Your task to perform on an android device: delete the emails in spam in the gmail app Image 0: 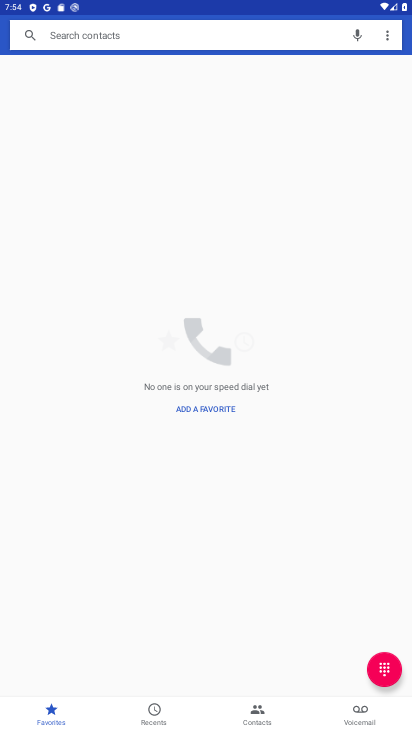
Step 0: press home button
Your task to perform on an android device: delete the emails in spam in the gmail app Image 1: 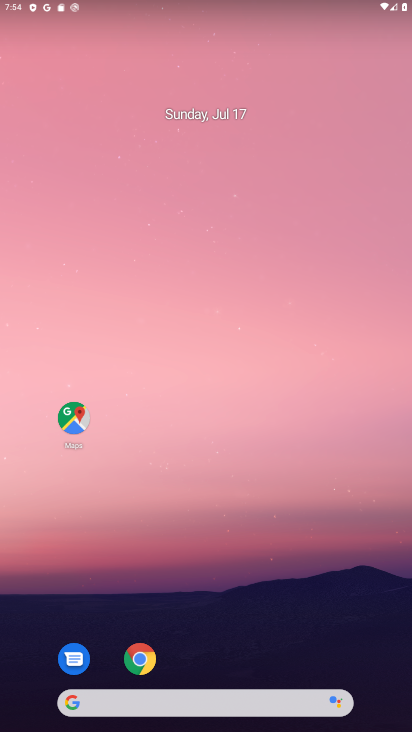
Step 1: drag from (216, 552) to (328, 194)
Your task to perform on an android device: delete the emails in spam in the gmail app Image 2: 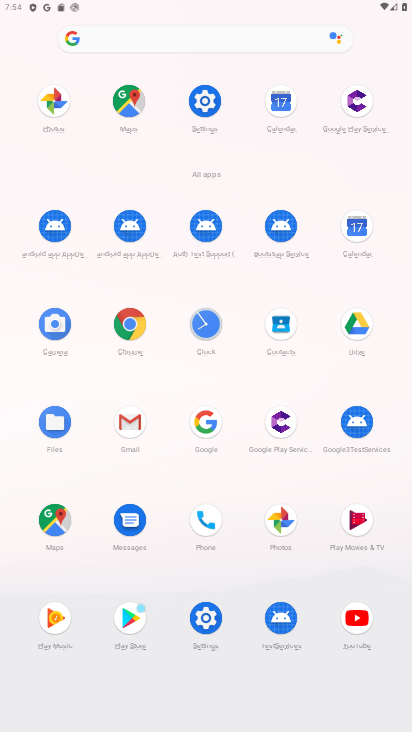
Step 2: click (131, 423)
Your task to perform on an android device: delete the emails in spam in the gmail app Image 3: 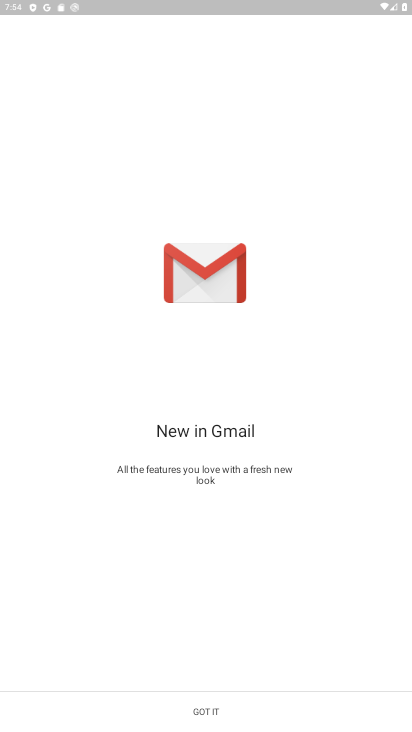
Step 3: click (206, 701)
Your task to perform on an android device: delete the emails in spam in the gmail app Image 4: 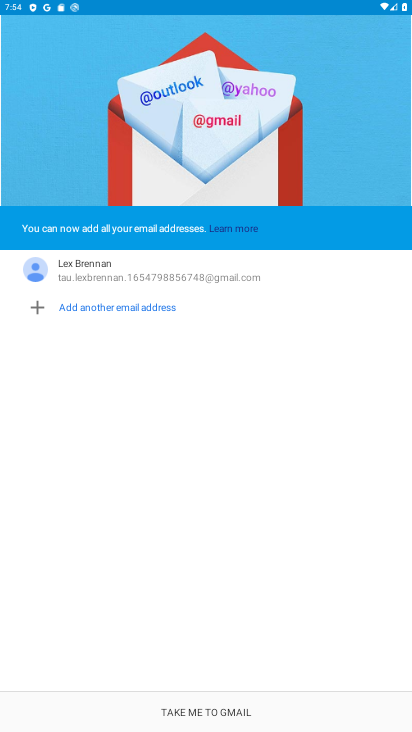
Step 4: click (135, 270)
Your task to perform on an android device: delete the emails in spam in the gmail app Image 5: 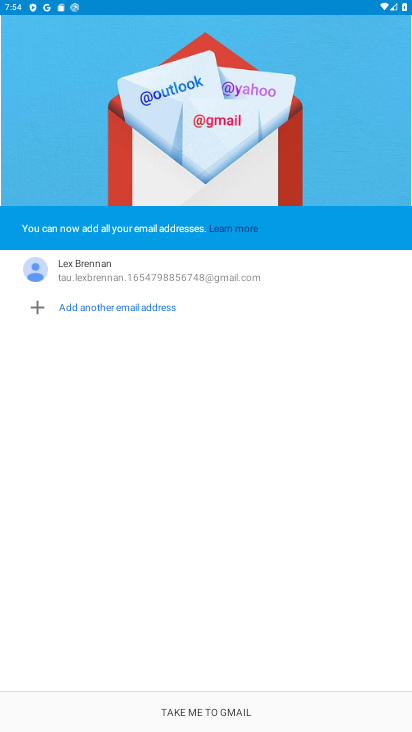
Step 5: click (130, 270)
Your task to perform on an android device: delete the emails in spam in the gmail app Image 6: 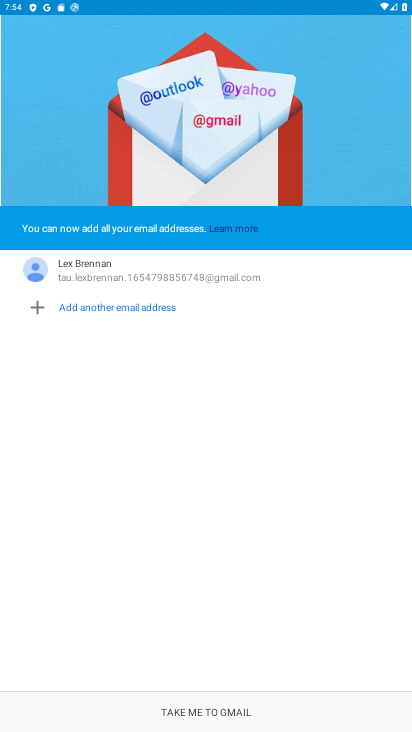
Step 6: click (202, 711)
Your task to perform on an android device: delete the emails in spam in the gmail app Image 7: 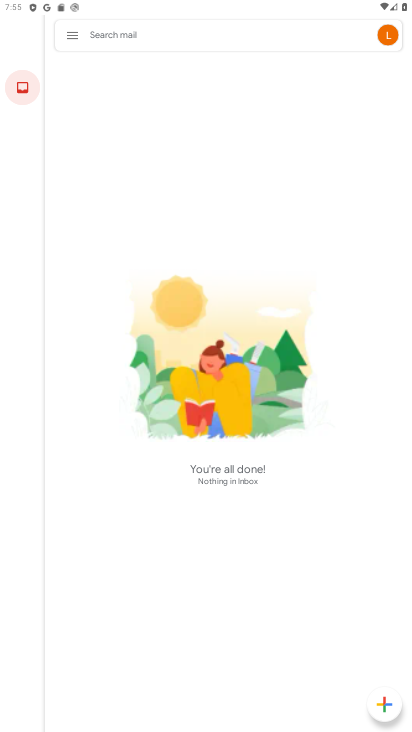
Step 7: click (77, 34)
Your task to perform on an android device: delete the emails in spam in the gmail app Image 8: 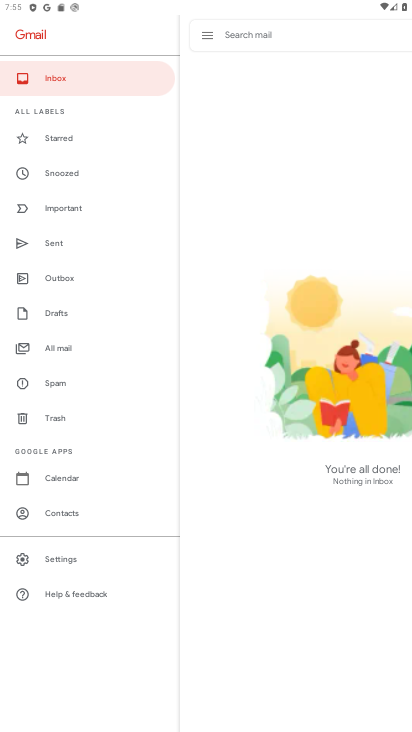
Step 8: click (73, 378)
Your task to perform on an android device: delete the emails in spam in the gmail app Image 9: 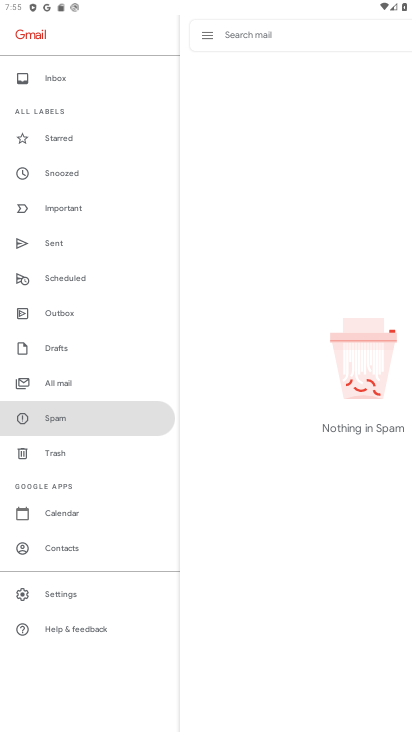
Step 9: click (56, 417)
Your task to perform on an android device: delete the emails in spam in the gmail app Image 10: 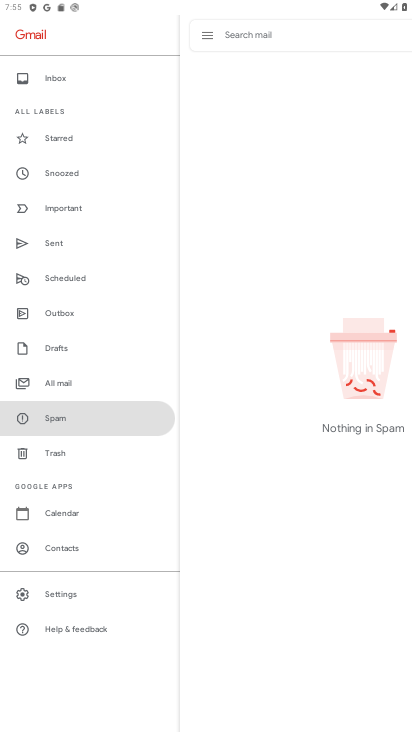
Step 10: task complete